Your task to perform on an android device: Clear the cart on costco. Search for logitech g pro on costco, select the first entry, add it to the cart, then select checkout. Image 0: 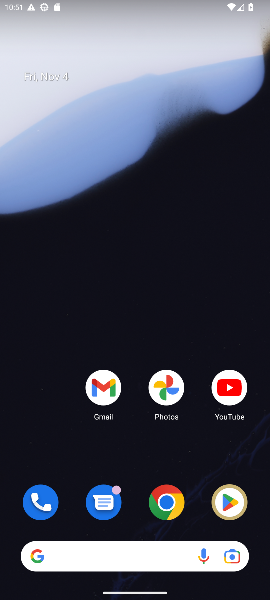
Step 0: drag from (131, 462) to (189, 43)
Your task to perform on an android device: Clear the cart on costco. Search for logitech g pro on costco, select the first entry, add it to the cart, then select checkout. Image 1: 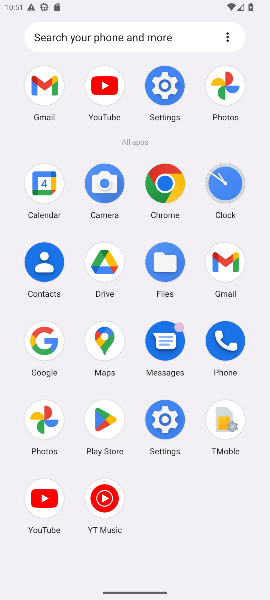
Step 1: click (164, 188)
Your task to perform on an android device: Clear the cart on costco. Search for logitech g pro on costco, select the first entry, add it to the cart, then select checkout. Image 2: 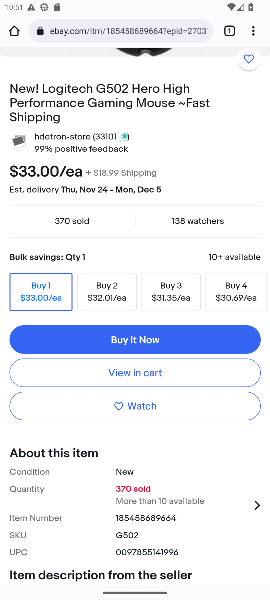
Step 2: click (169, 33)
Your task to perform on an android device: Clear the cart on costco. Search for logitech g pro on costco, select the first entry, add it to the cart, then select checkout. Image 3: 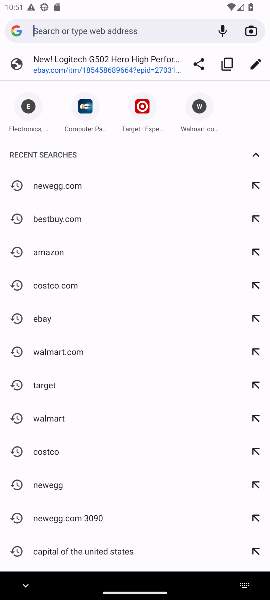
Step 3: type "costco.com"
Your task to perform on an android device: Clear the cart on costco. Search for logitech g pro on costco, select the first entry, add it to the cart, then select checkout. Image 4: 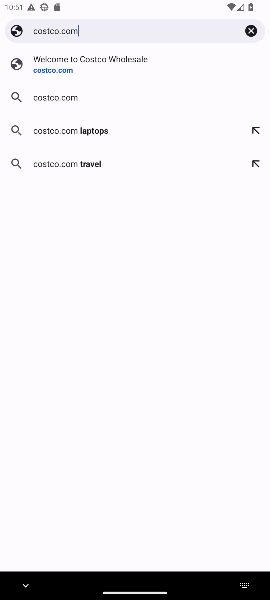
Step 4: press enter
Your task to perform on an android device: Clear the cart on costco. Search for logitech g pro on costco, select the first entry, add it to the cart, then select checkout. Image 5: 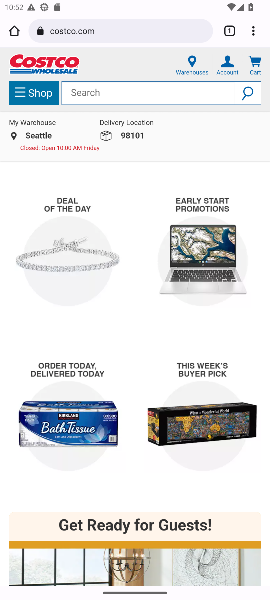
Step 5: click (247, 66)
Your task to perform on an android device: Clear the cart on costco. Search for logitech g pro on costco, select the first entry, add it to the cart, then select checkout. Image 6: 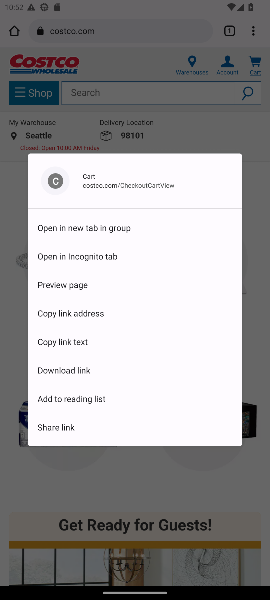
Step 6: click (250, 68)
Your task to perform on an android device: Clear the cart on costco. Search for logitech g pro on costco, select the first entry, add it to the cart, then select checkout. Image 7: 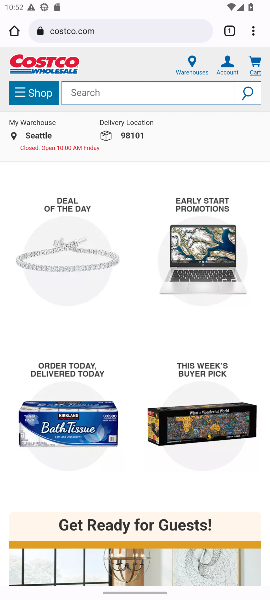
Step 7: click (250, 66)
Your task to perform on an android device: Clear the cart on costco. Search for logitech g pro on costco, select the first entry, add it to the cart, then select checkout. Image 8: 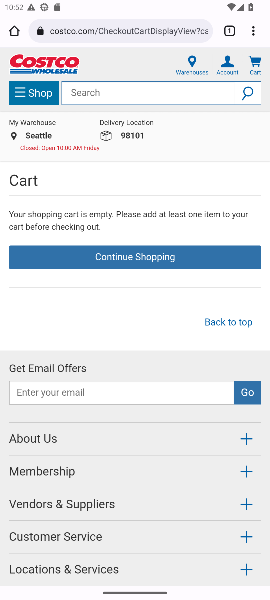
Step 8: click (189, 94)
Your task to perform on an android device: Clear the cart on costco. Search for logitech g pro on costco, select the first entry, add it to the cart, then select checkout. Image 9: 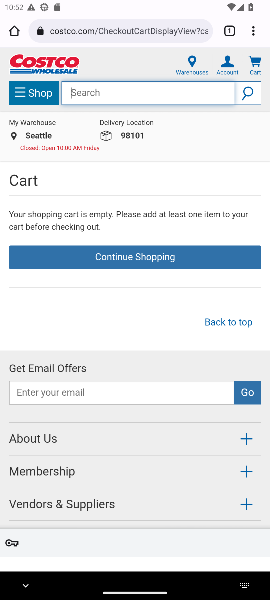
Step 9: type "logitech g pro"
Your task to perform on an android device: Clear the cart on costco. Search for logitech g pro on costco, select the first entry, add it to the cart, then select checkout. Image 10: 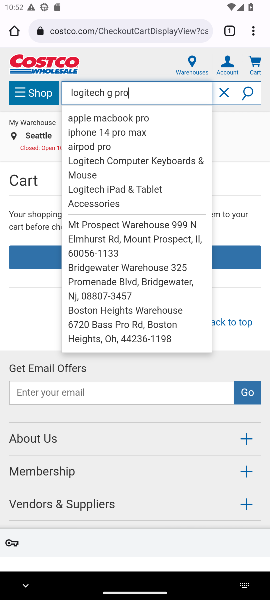
Step 10: press enter
Your task to perform on an android device: Clear the cart on costco. Search for logitech g pro on costco, select the first entry, add it to the cart, then select checkout. Image 11: 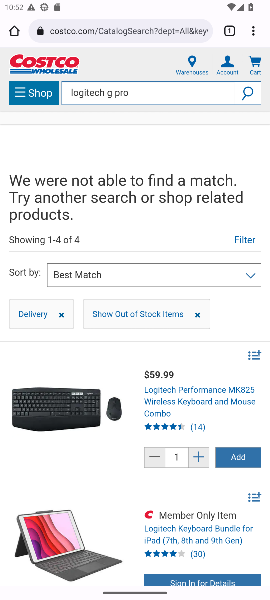
Step 11: task complete